Your task to perform on an android device: check battery use Image 0: 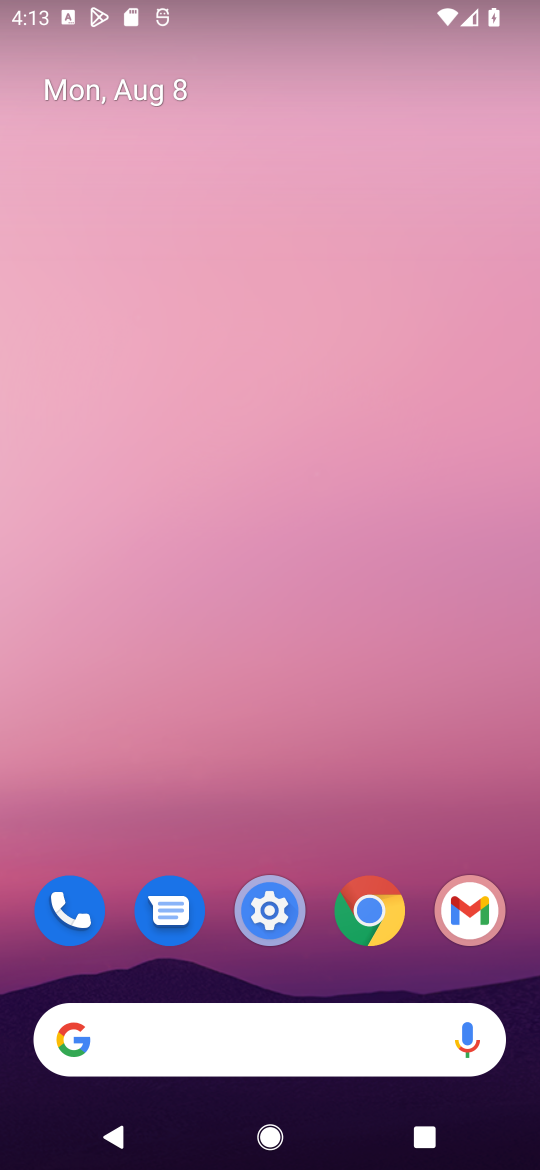
Step 0: click (279, 936)
Your task to perform on an android device: check battery use Image 1: 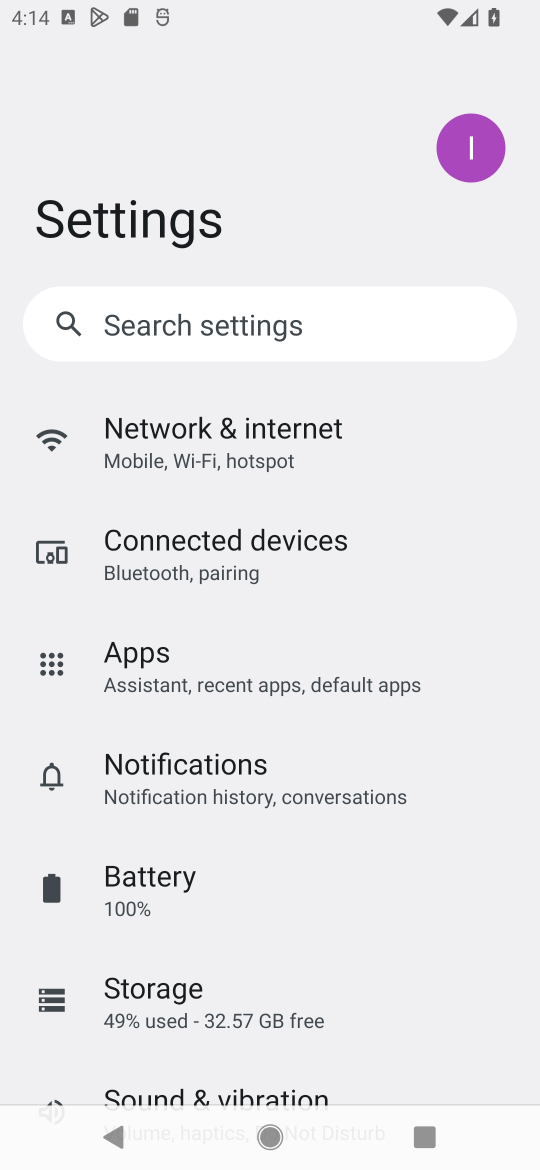
Step 1: click (167, 879)
Your task to perform on an android device: check battery use Image 2: 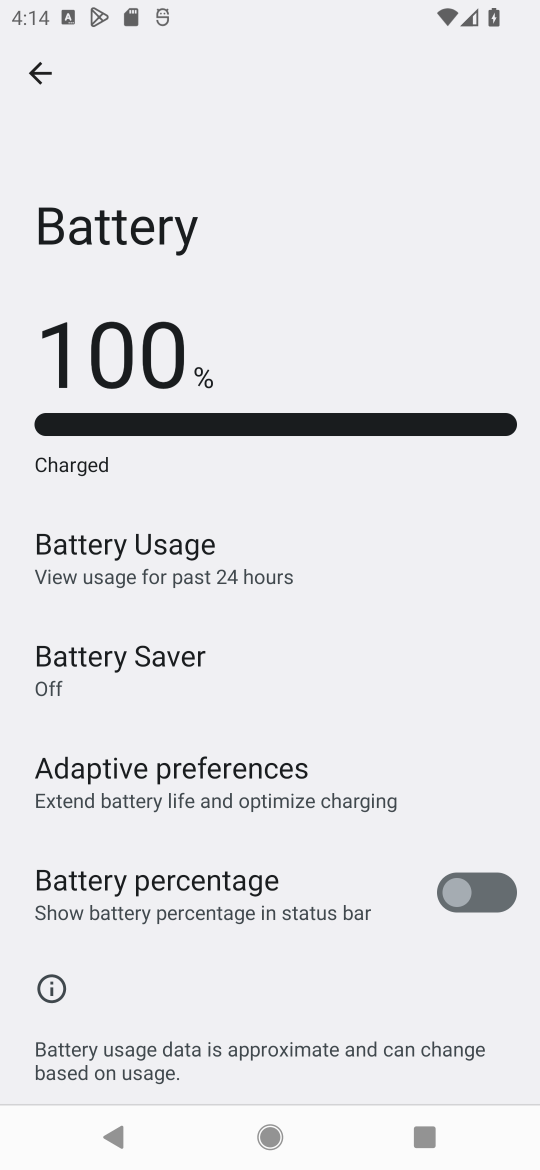
Step 2: click (146, 573)
Your task to perform on an android device: check battery use Image 3: 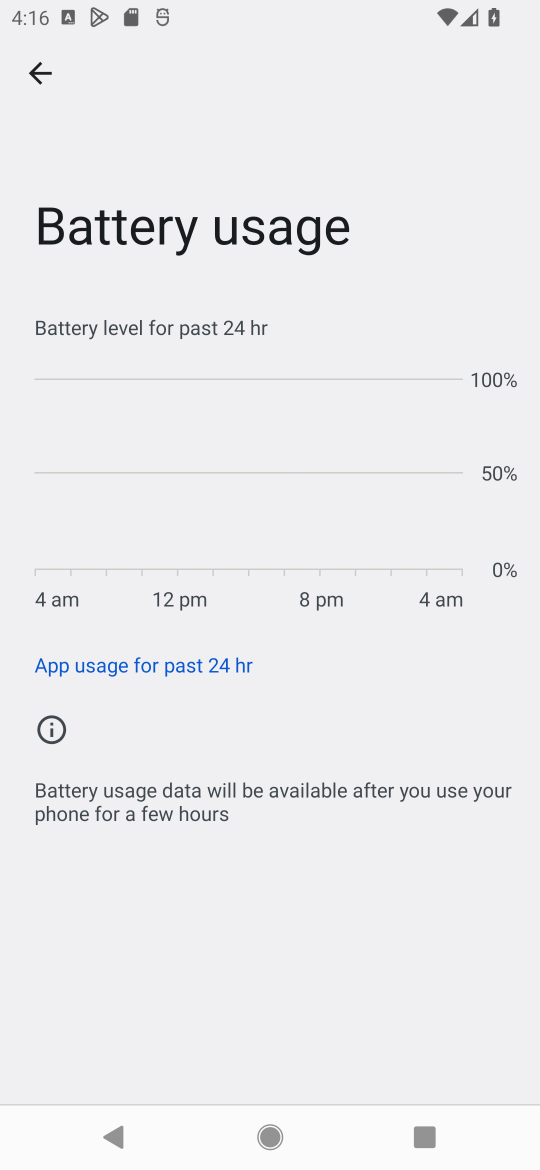
Step 3: task complete